Your task to perform on an android device: create a new album in the google photos Image 0: 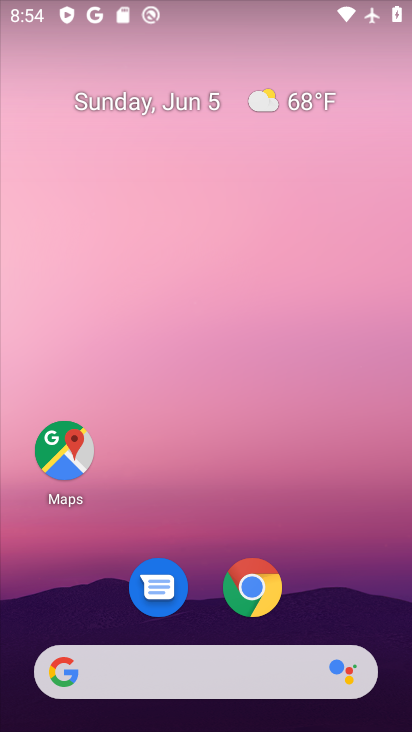
Step 0: drag from (330, 576) to (292, 248)
Your task to perform on an android device: create a new album in the google photos Image 1: 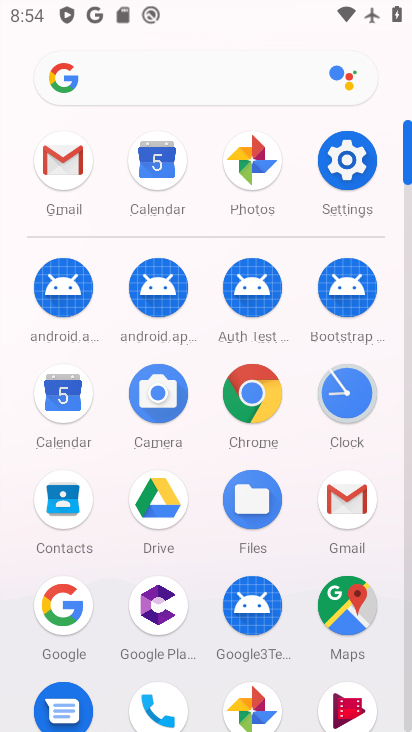
Step 1: click (238, 186)
Your task to perform on an android device: create a new album in the google photos Image 2: 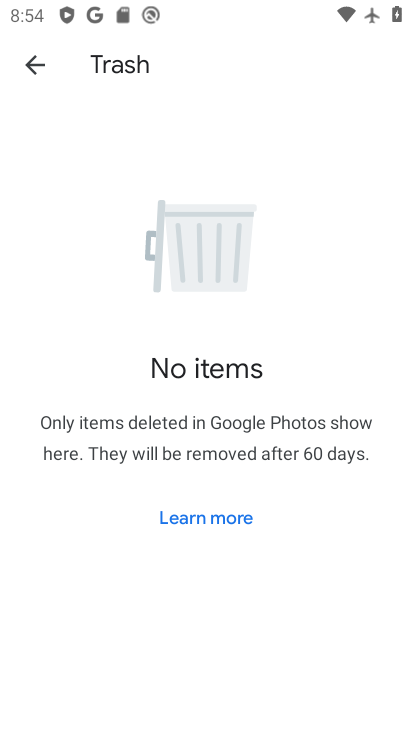
Step 2: click (31, 58)
Your task to perform on an android device: create a new album in the google photos Image 3: 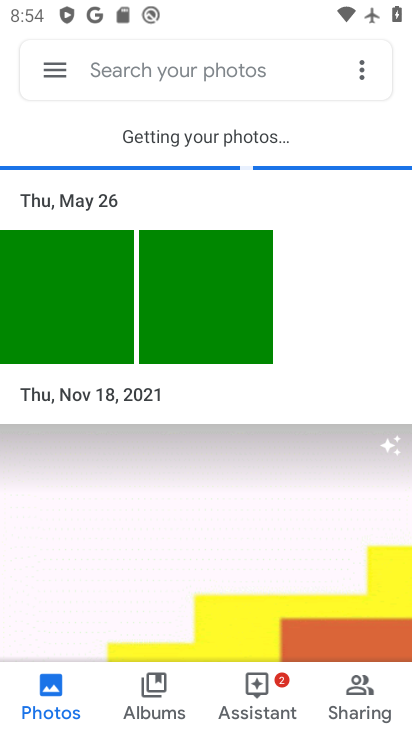
Step 3: click (99, 69)
Your task to perform on an android device: create a new album in the google photos Image 4: 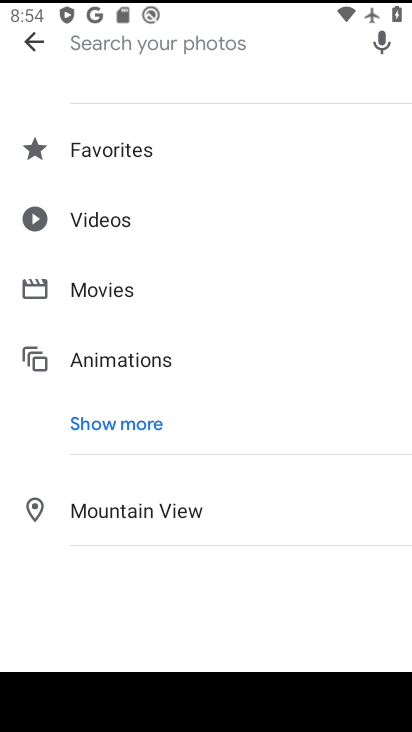
Step 4: click (50, 26)
Your task to perform on an android device: create a new album in the google photos Image 5: 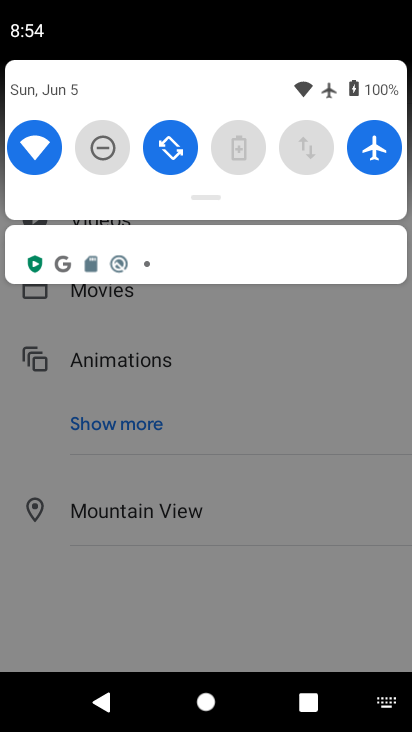
Step 5: click (36, 36)
Your task to perform on an android device: create a new album in the google photos Image 6: 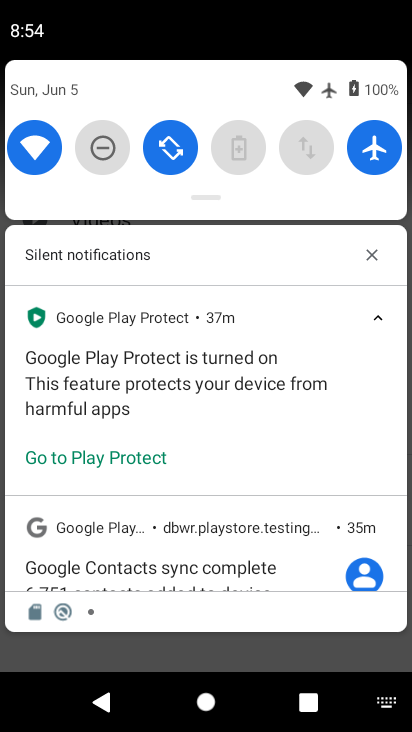
Step 6: click (360, 658)
Your task to perform on an android device: create a new album in the google photos Image 7: 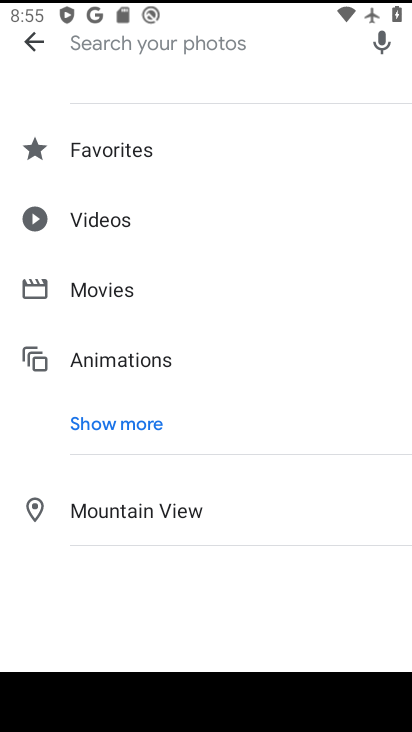
Step 7: click (33, 38)
Your task to perform on an android device: create a new album in the google photos Image 8: 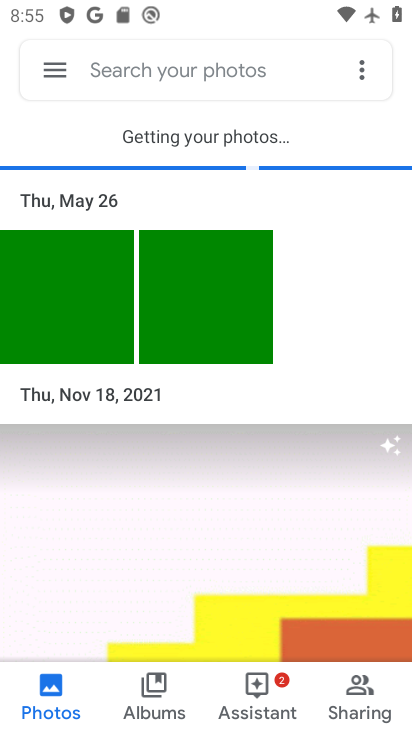
Step 8: click (363, 69)
Your task to perform on an android device: create a new album in the google photos Image 9: 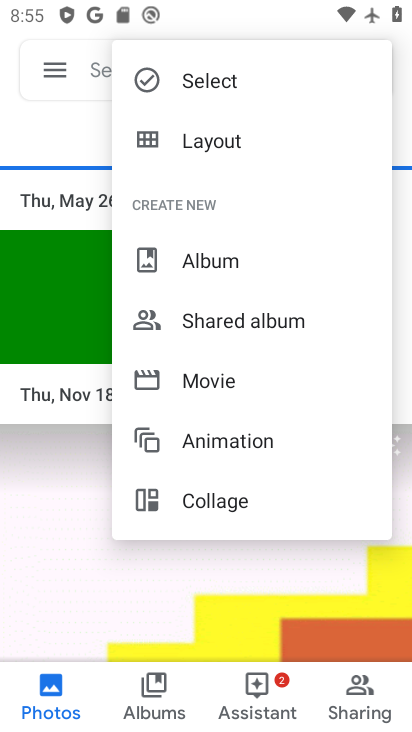
Step 9: click (227, 254)
Your task to perform on an android device: create a new album in the google photos Image 10: 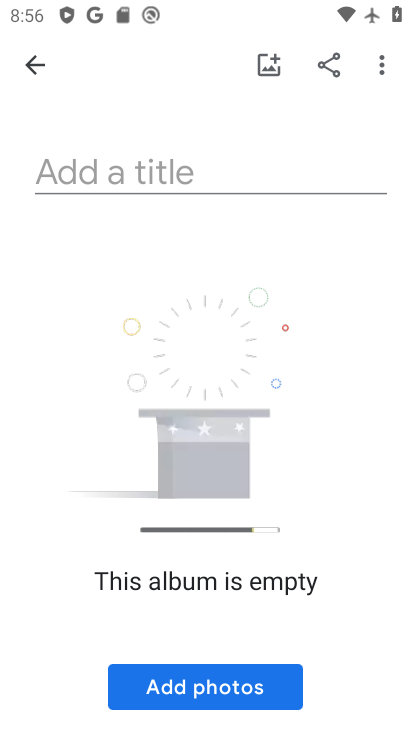
Step 10: click (172, 166)
Your task to perform on an android device: create a new album in the google photos Image 11: 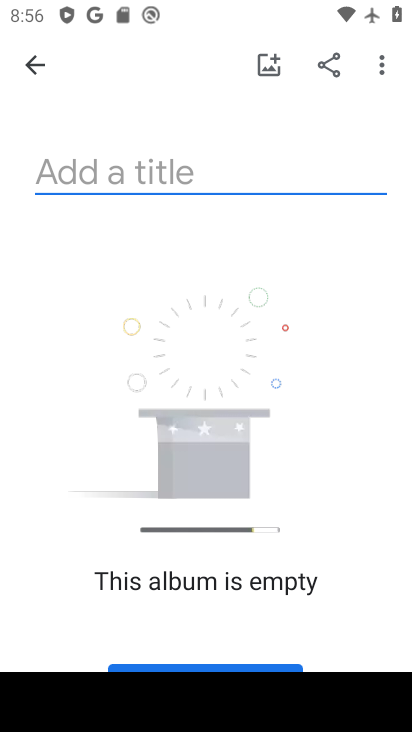
Step 11: click (172, 166)
Your task to perform on an android device: create a new album in the google photos Image 12: 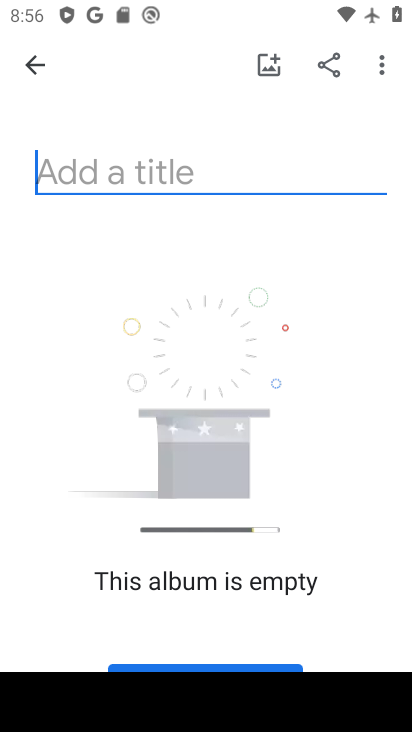
Step 12: type "jkdsjcdkscjdkl"
Your task to perform on an android device: create a new album in the google photos Image 13: 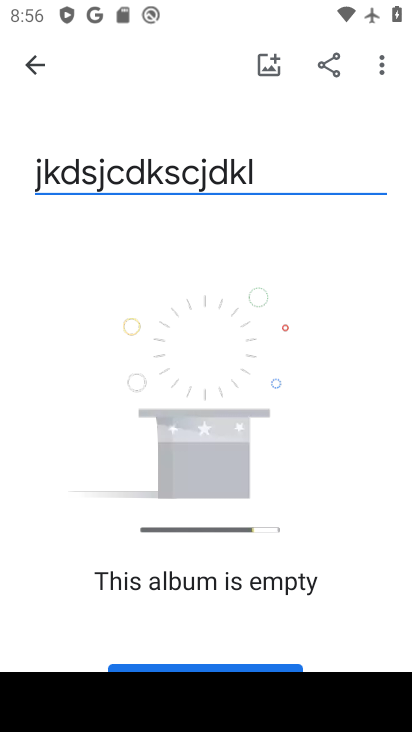
Step 13: click (213, 663)
Your task to perform on an android device: create a new album in the google photos Image 14: 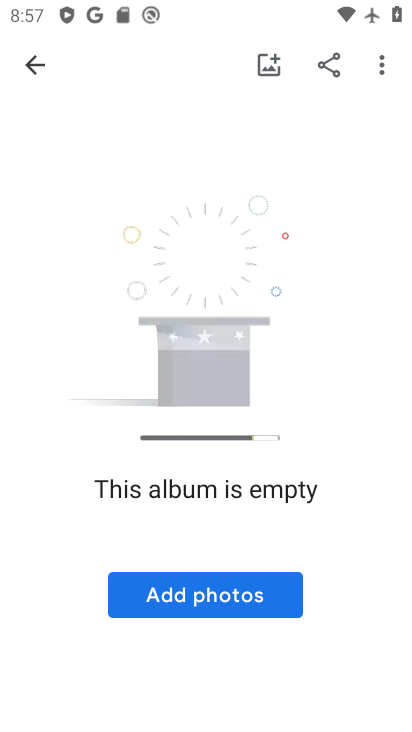
Step 14: click (209, 585)
Your task to perform on an android device: create a new album in the google photos Image 15: 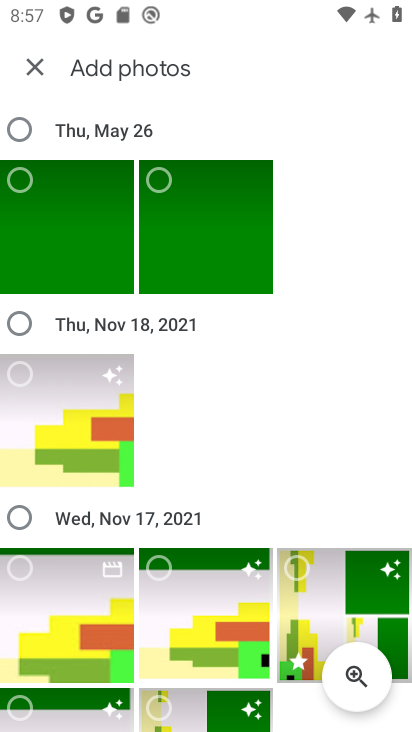
Step 15: click (152, 194)
Your task to perform on an android device: create a new album in the google photos Image 16: 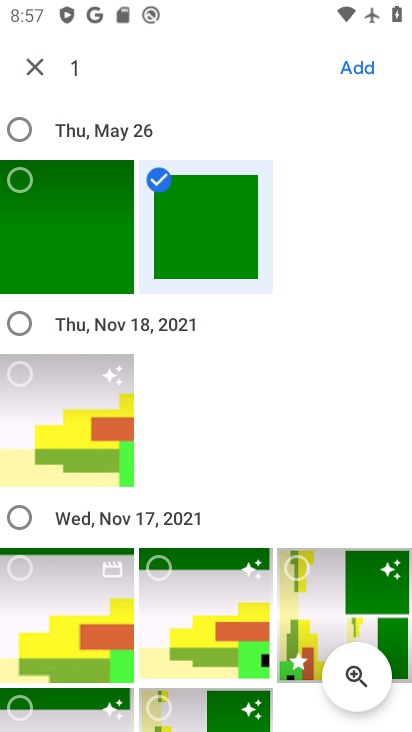
Step 16: click (345, 65)
Your task to perform on an android device: create a new album in the google photos Image 17: 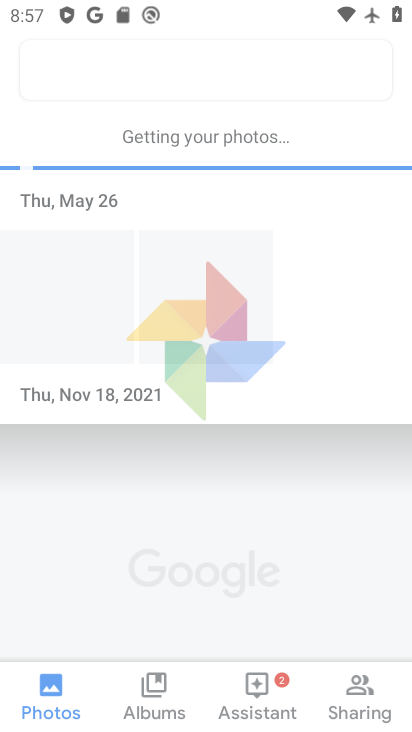
Step 17: task complete